Your task to perform on an android device: Go to wifi settings Image 0: 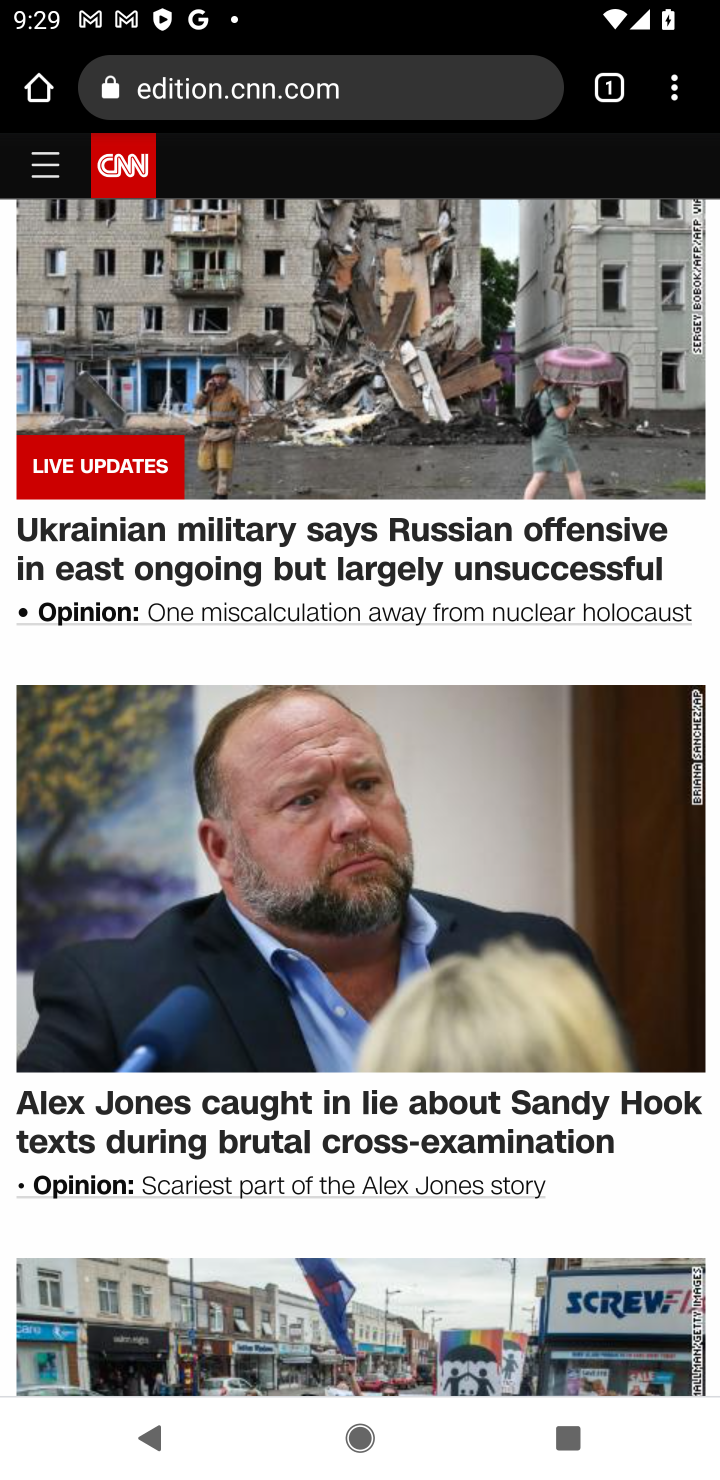
Step 0: press home button
Your task to perform on an android device: Go to wifi settings Image 1: 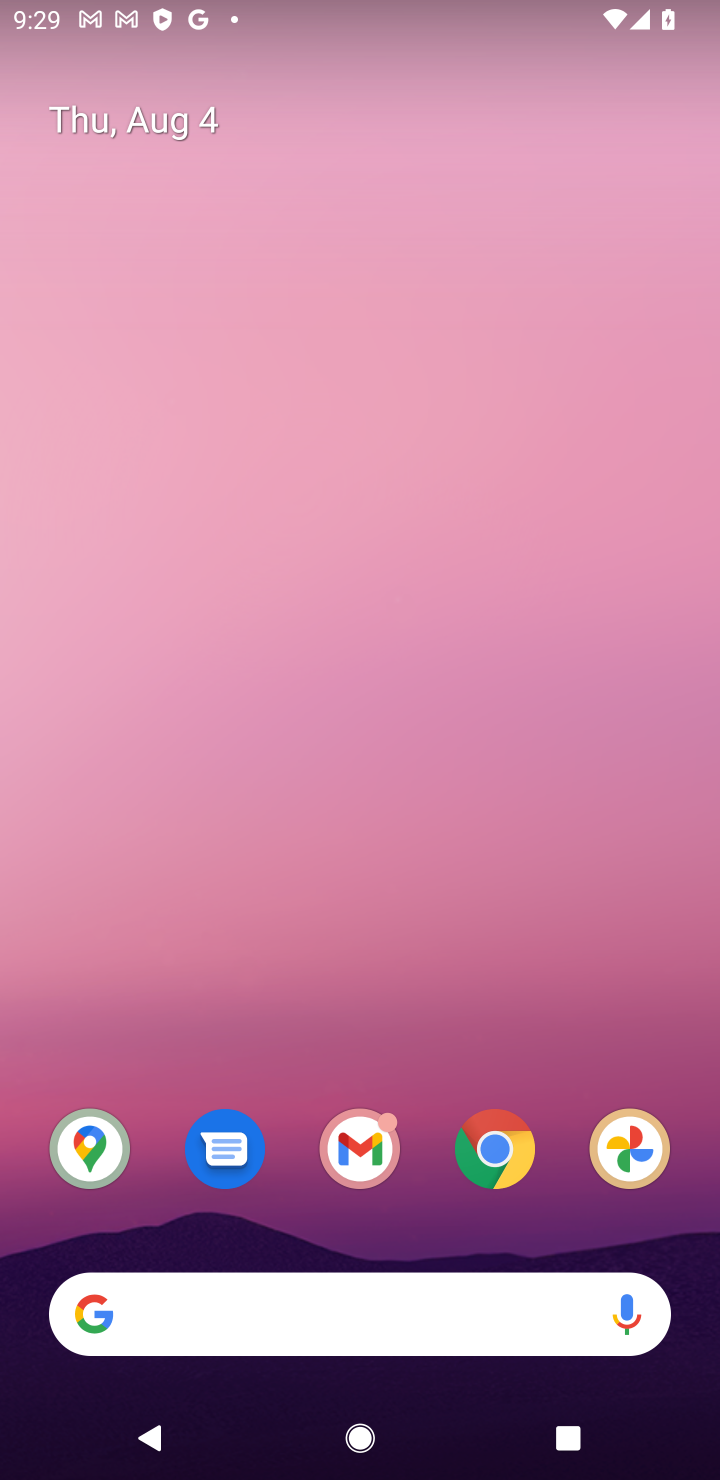
Step 1: drag from (422, 28) to (395, 1095)
Your task to perform on an android device: Go to wifi settings Image 2: 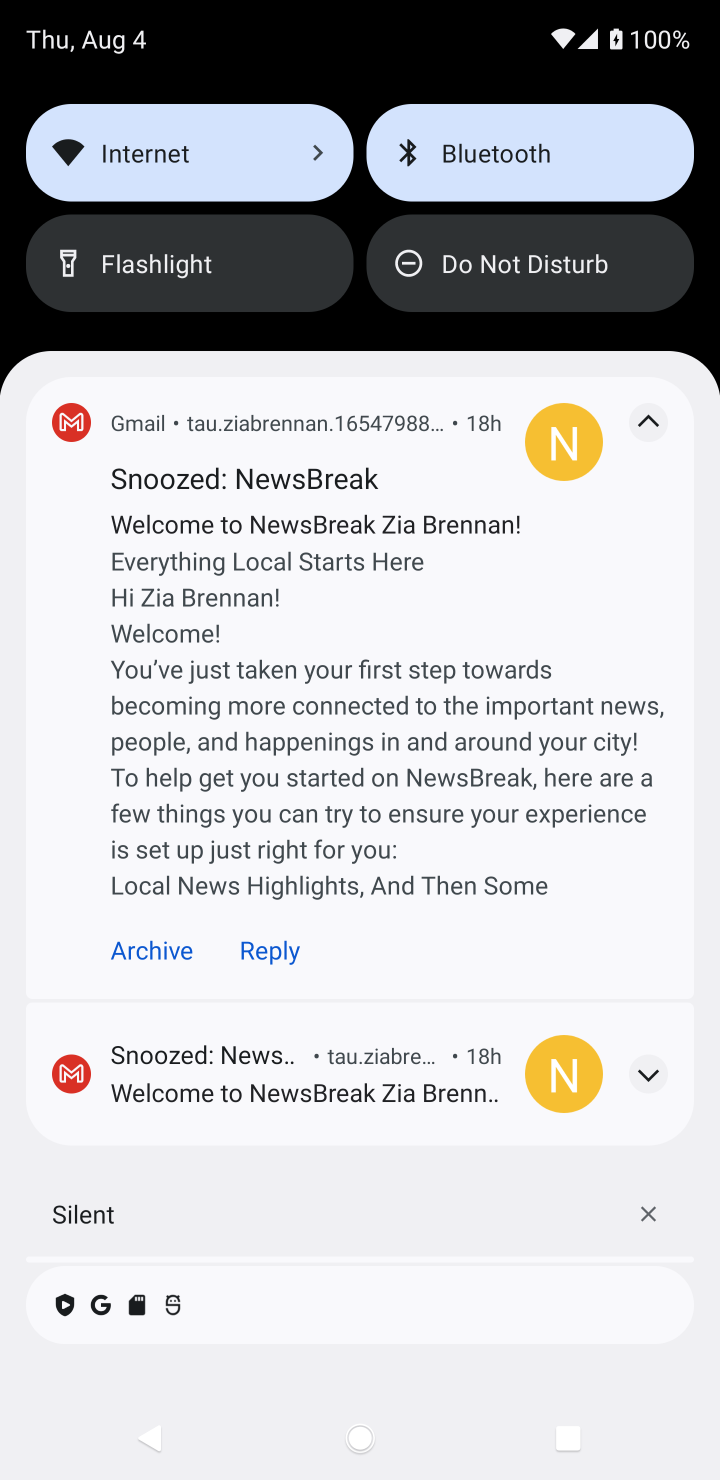
Step 2: press home button
Your task to perform on an android device: Go to wifi settings Image 3: 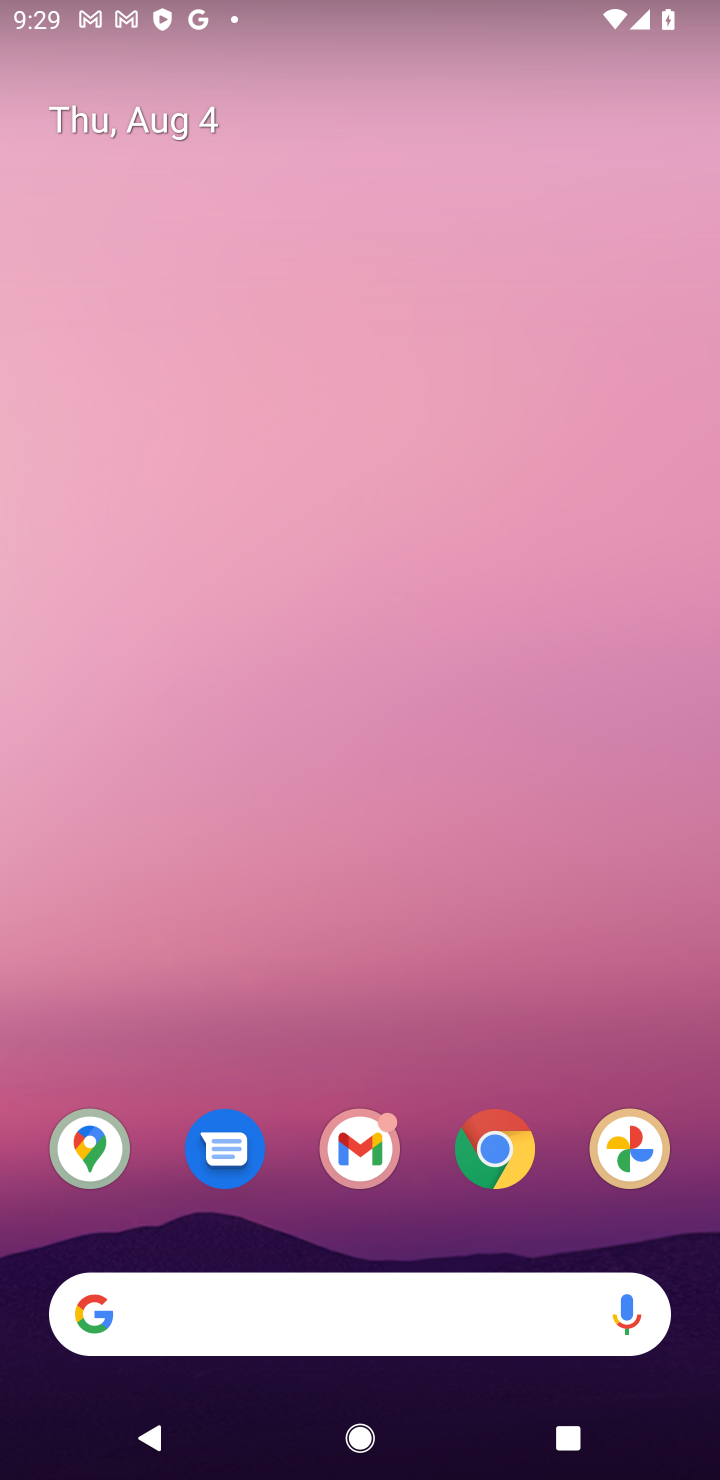
Step 3: drag from (454, 1224) to (362, 173)
Your task to perform on an android device: Go to wifi settings Image 4: 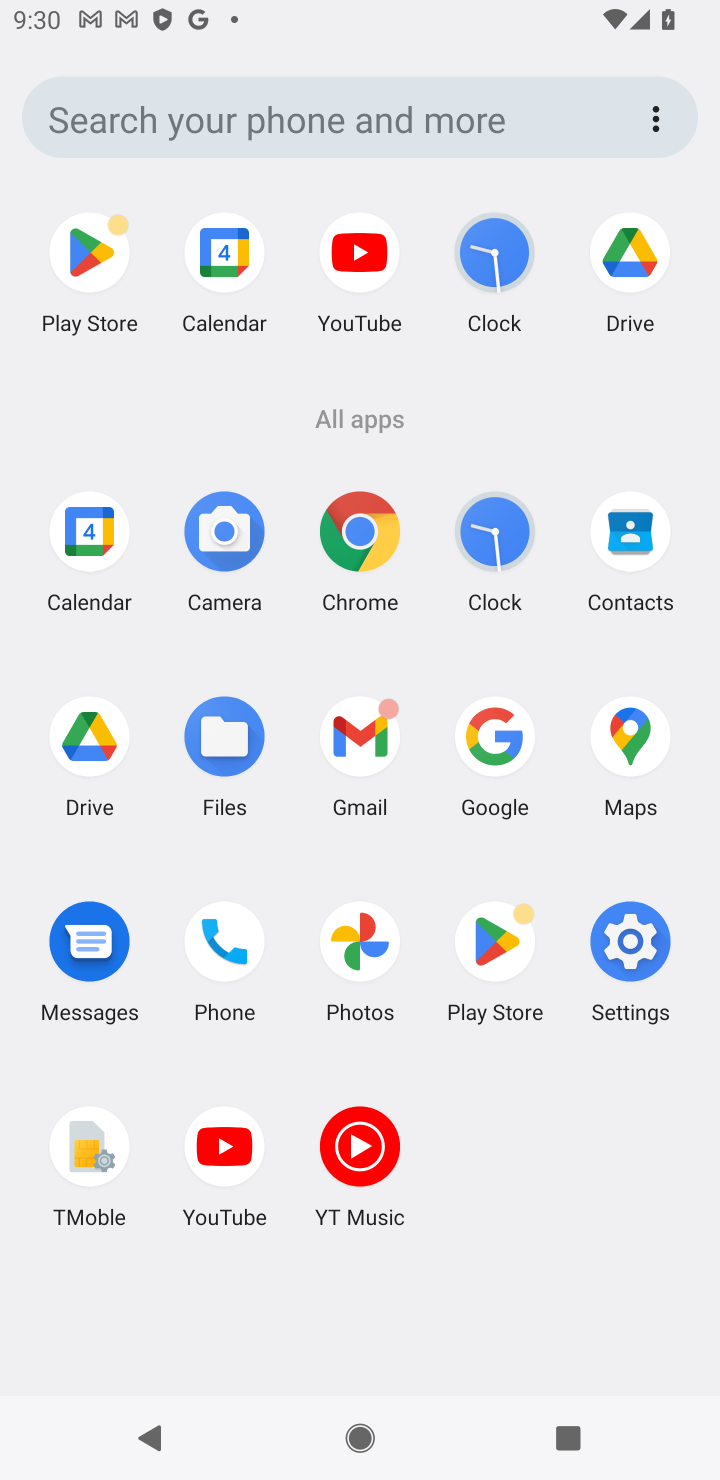
Step 4: click (630, 941)
Your task to perform on an android device: Go to wifi settings Image 5: 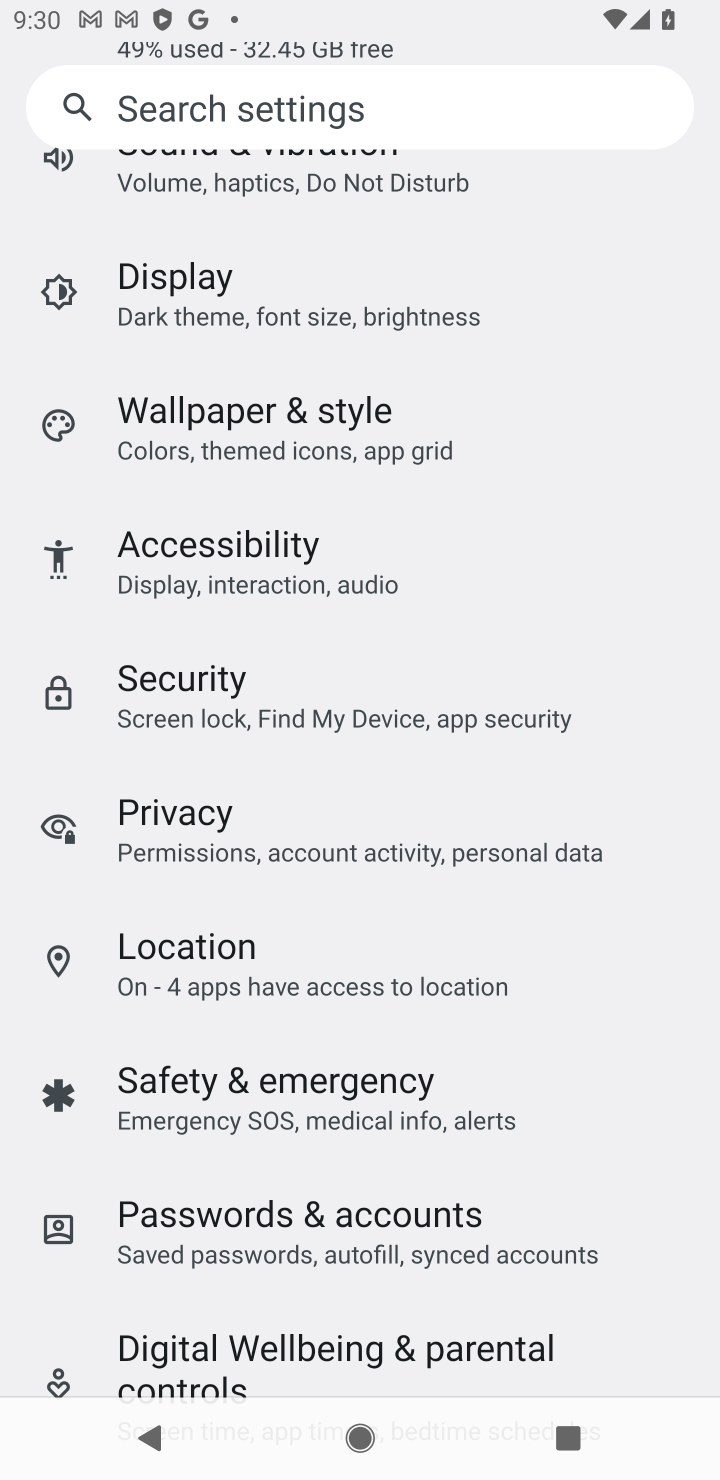
Step 5: drag from (604, 315) to (503, 1138)
Your task to perform on an android device: Go to wifi settings Image 6: 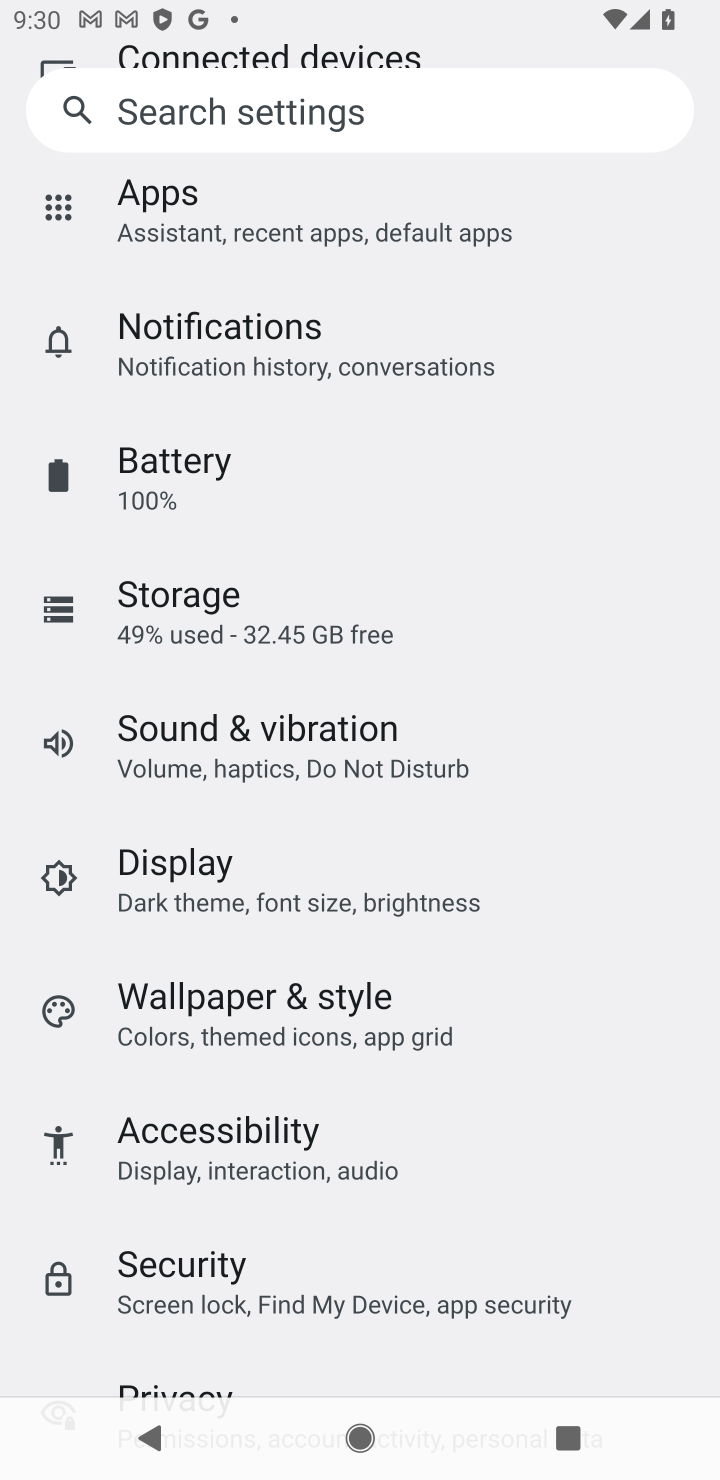
Step 6: drag from (544, 302) to (481, 866)
Your task to perform on an android device: Go to wifi settings Image 7: 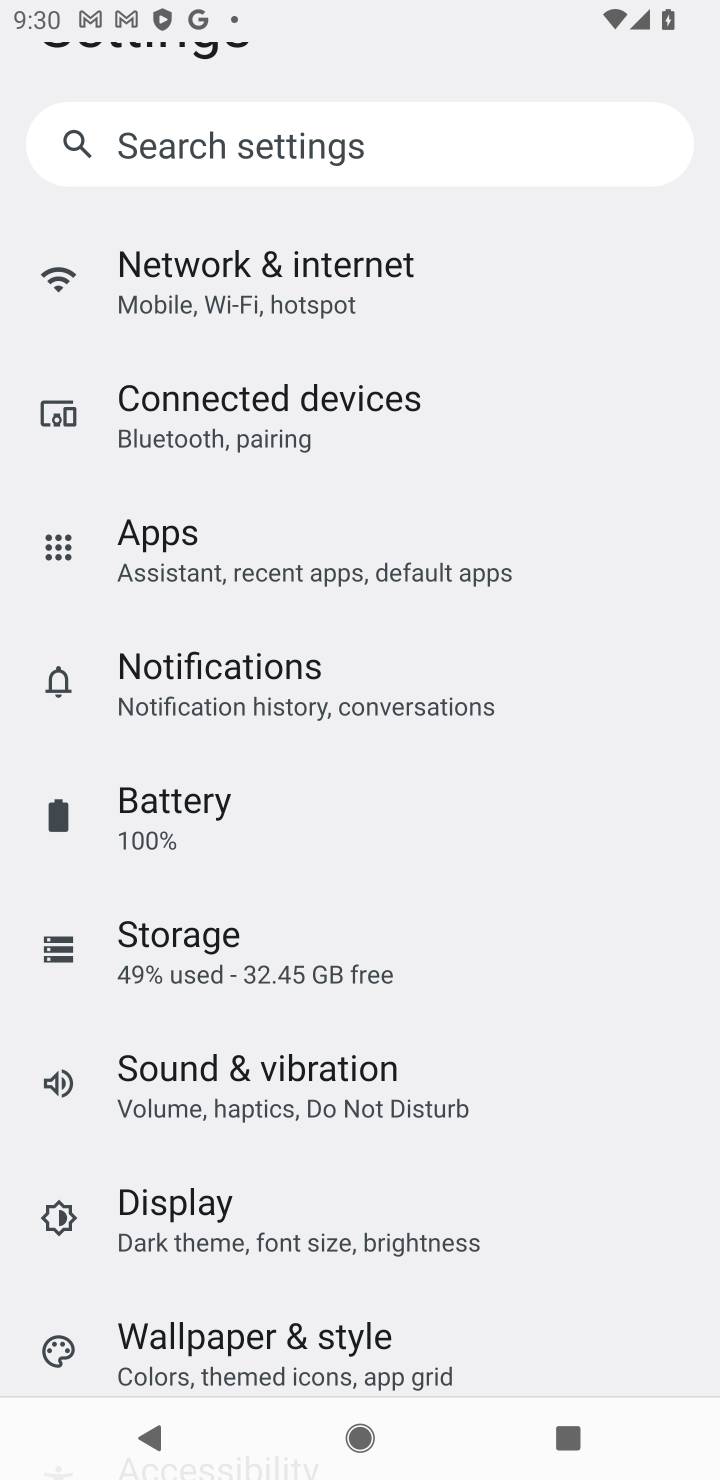
Step 7: click (188, 292)
Your task to perform on an android device: Go to wifi settings Image 8: 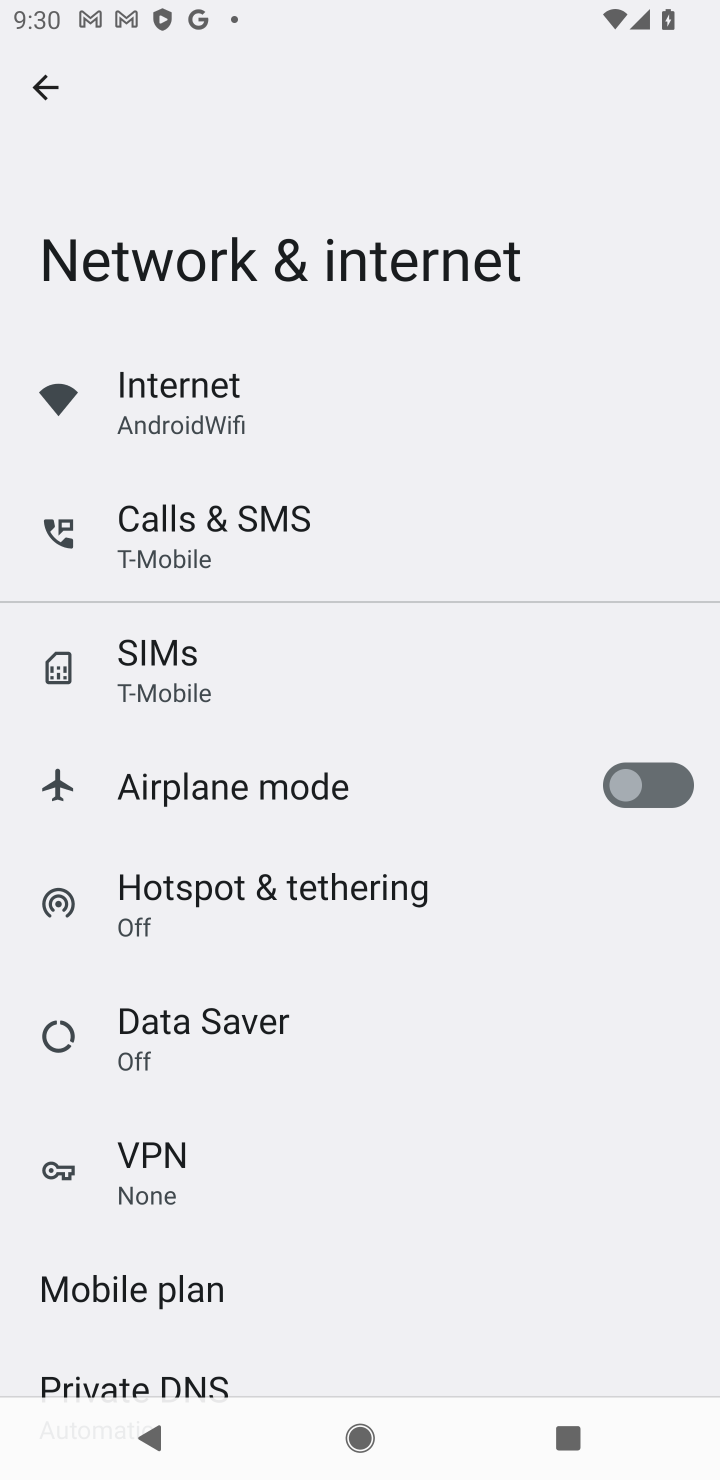
Step 8: click (171, 401)
Your task to perform on an android device: Go to wifi settings Image 9: 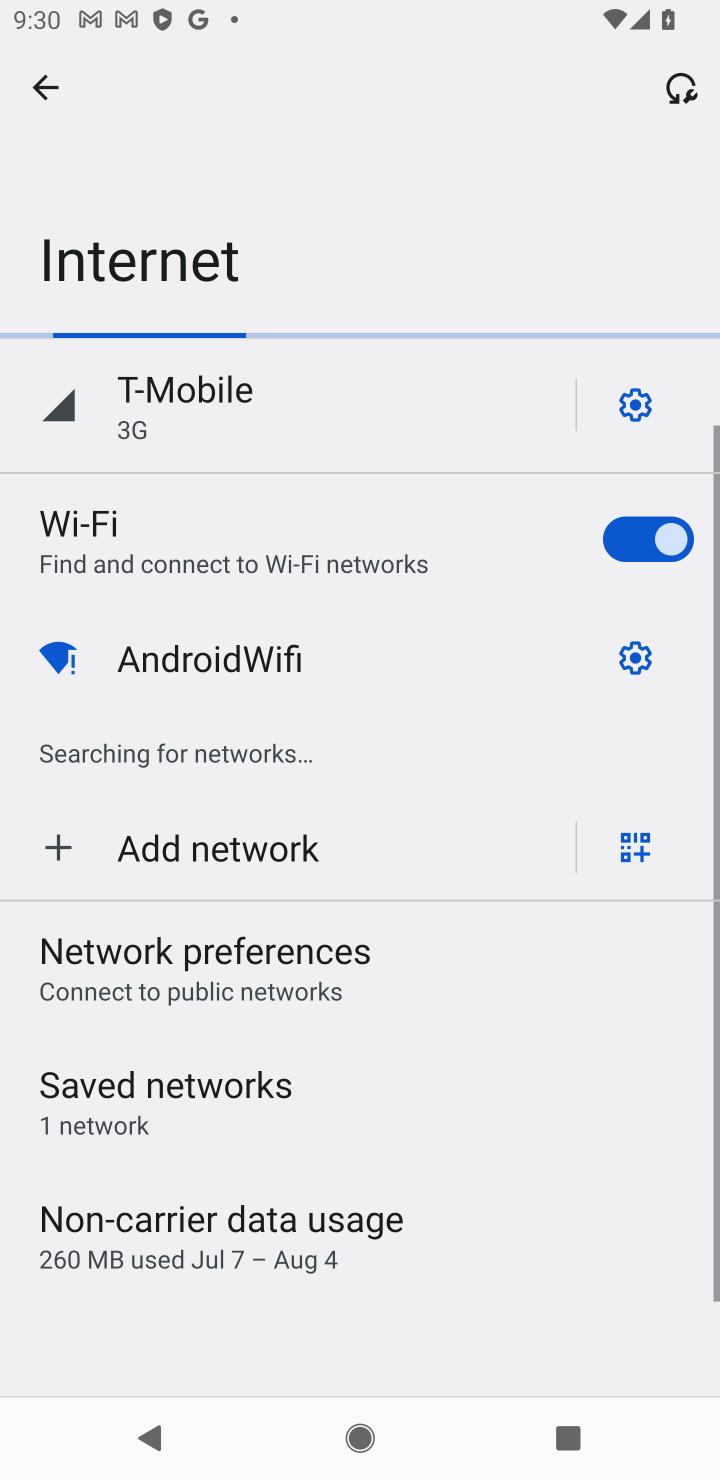
Step 9: click (628, 650)
Your task to perform on an android device: Go to wifi settings Image 10: 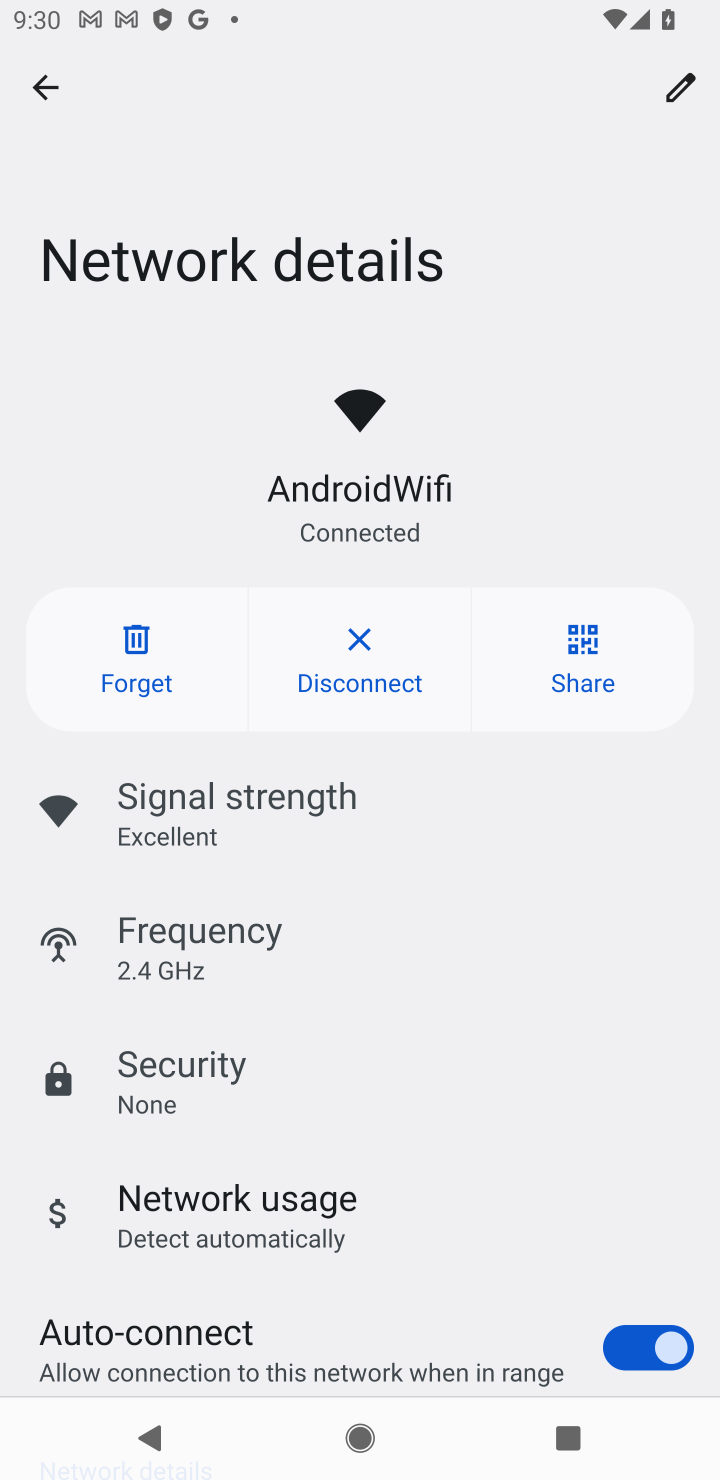
Step 10: task complete